Your task to perform on an android device: turn on bluetooth scan Image 0: 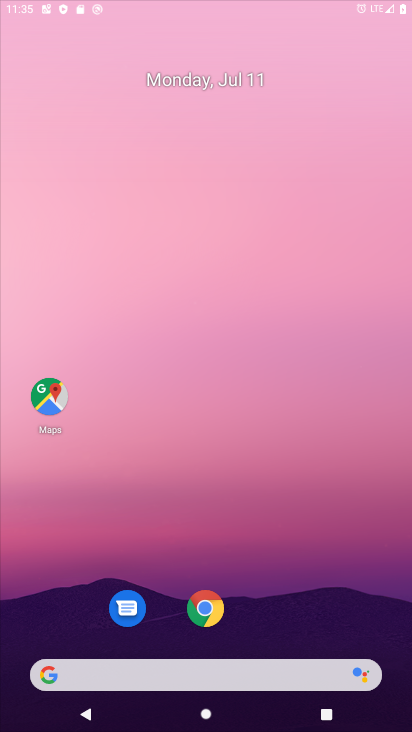
Step 0: drag from (190, 301) to (224, 164)
Your task to perform on an android device: turn on bluetooth scan Image 1: 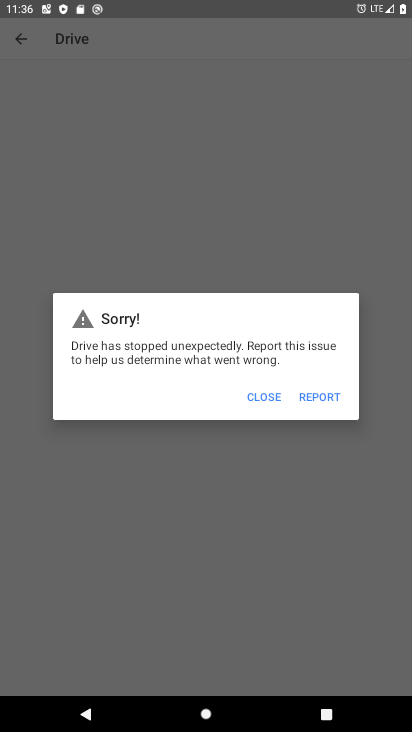
Step 1: press home button
Your task to perform on an android device: turn on bluetooth scan Image 2: 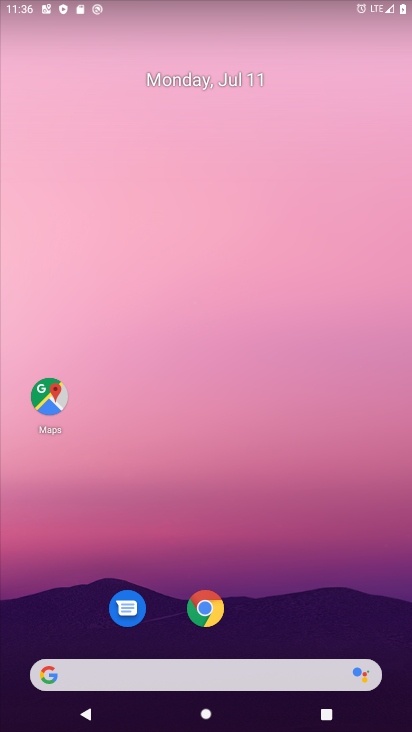
Step 2: drag from (25, 709) to (174, 61)
Your task to perform on an android device: turn on bluetooth scan Image 3: 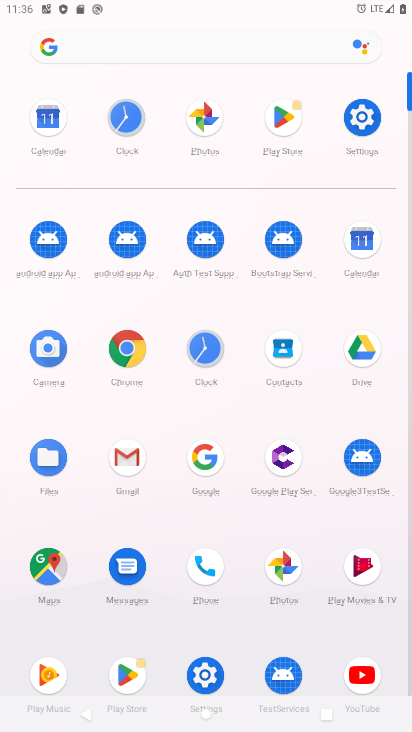
Step 3: click (206, 671)
Your task to perform on an android device: turn on bluetooth scan Image 4: 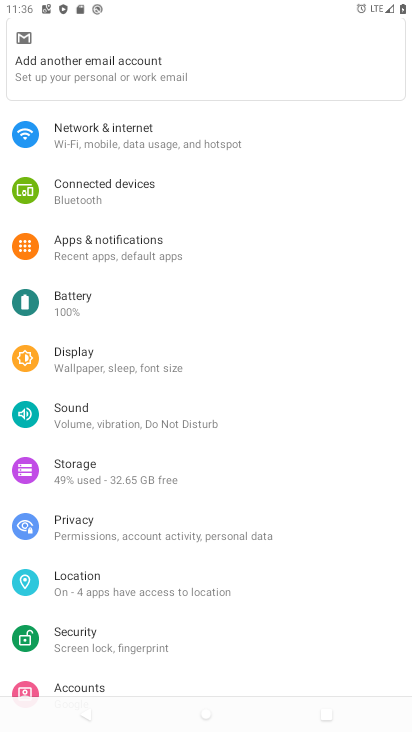
Step 4: click (116, 204)
Your task to perform on an android device: turn on bluetooth scan Image 5: 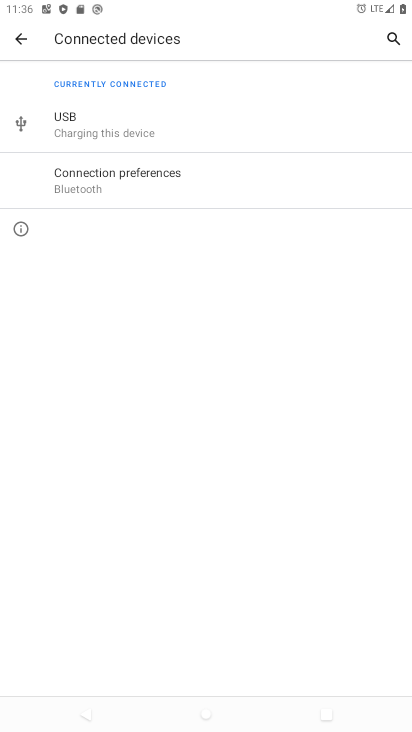
Step 5: click (122, 188)
Your task to perform on an android device: turn on bluetooth scan Image 6: 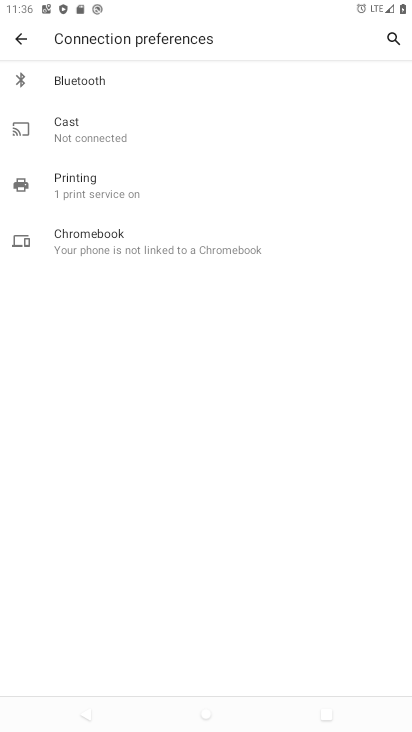
Step 6: click (113, 88)
Your task to perform on an android device: turn on bluetooth scan Image 7: 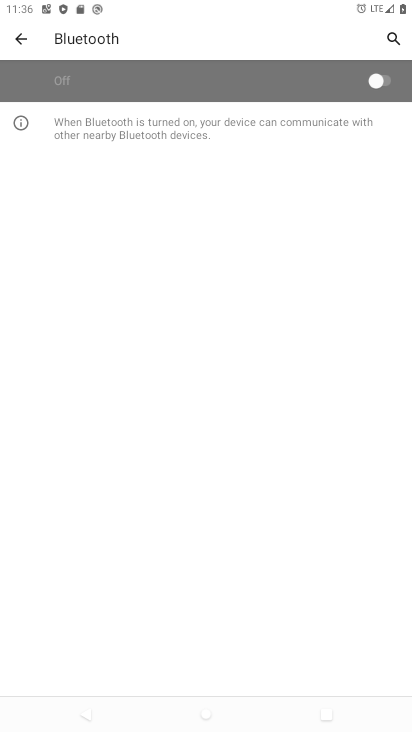
Step 7: click (377, 81)
Your task to perform on an android device: turn on bluetooth scan Image 8: 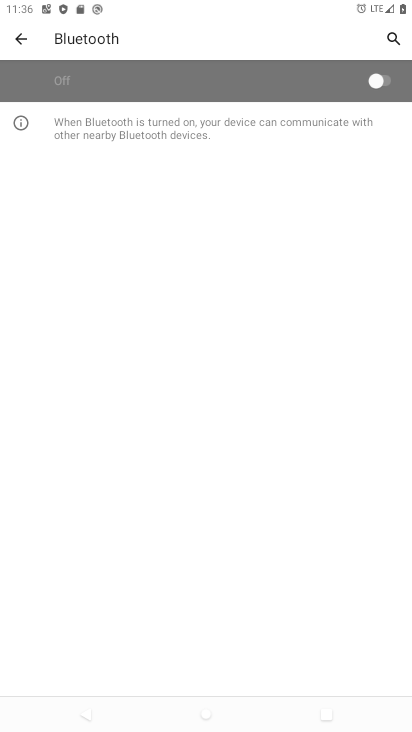
Step 8: click (371, 79)
Your task to perform on an android device: turn on bluetooth scan Image 9: 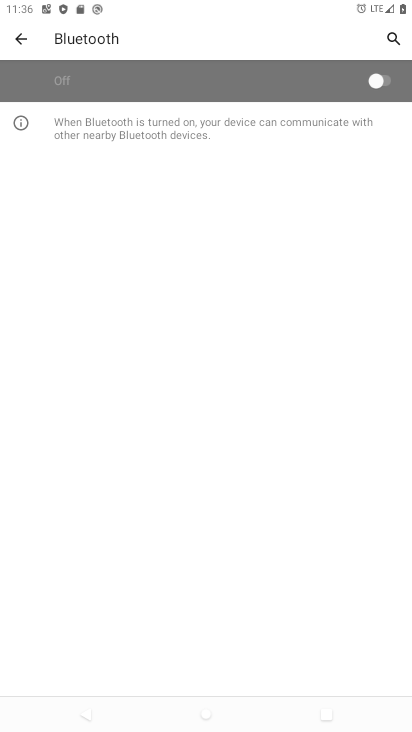
Step 9: click (375, 80)
Your task to perform on an android device: turn on bluetooth scan Image 10: 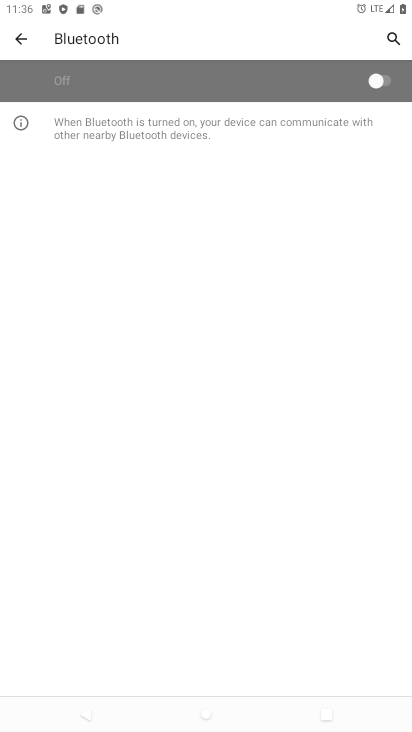
Step 10: task complete